Your task to perform on an android device: What's the weather going to be tomorrow? Image 0: 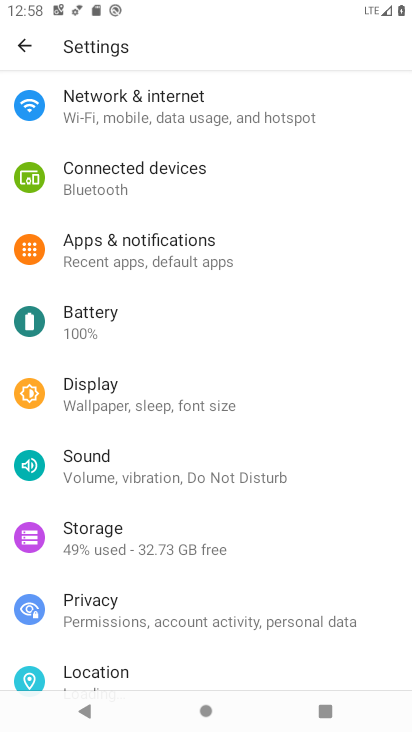
Step 0: press home button
Your task to perform on an android device: What's the weather going to be tomorrow? Image 1: 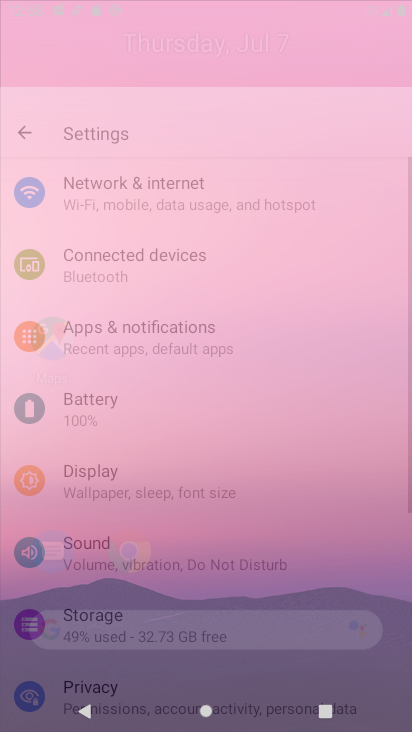
Step 1: drag from (240, 619) to (306, 53)
Your task to perform on an android device: What's the weather going to be tomorrow? Image 2: 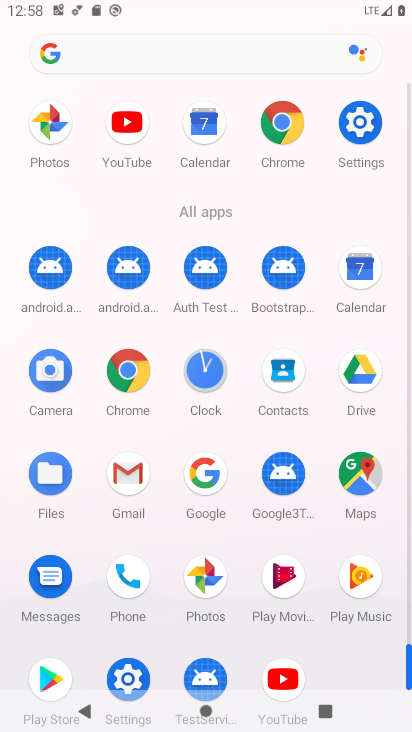
Step 2: click (141, 45)
Your task to perform on an android device: What's the weather going to be tomorrow? Image 3: 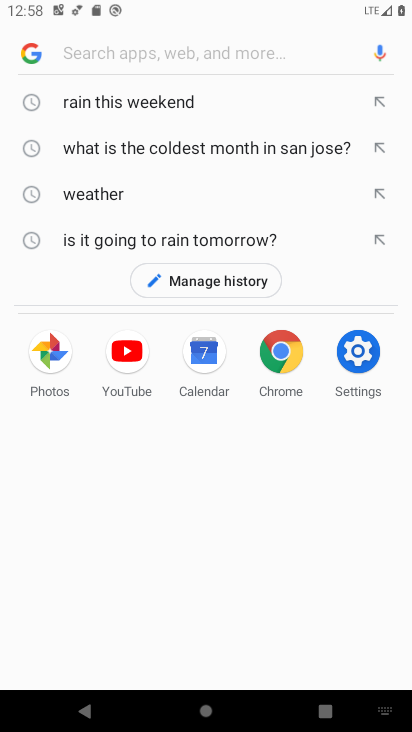
Step 3: type "What's the weather going to be tomorrow?"
Your task to perform on an android device: What's the weather going to be tomorrow? Image 4: 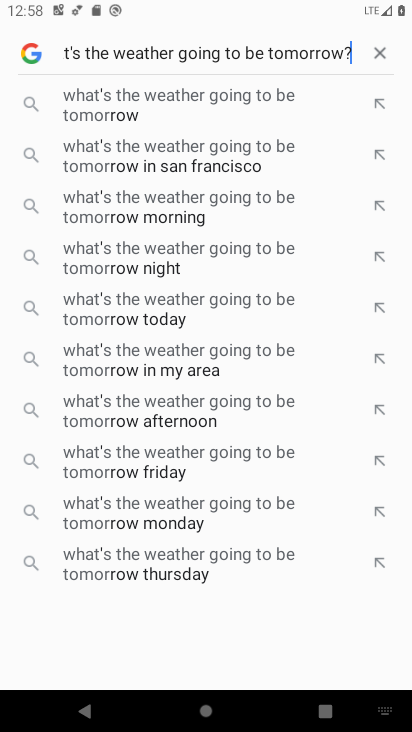
Step 4: type ""
Your task to perform on an android device: What's the weather going to be tomorrow? Image 5: 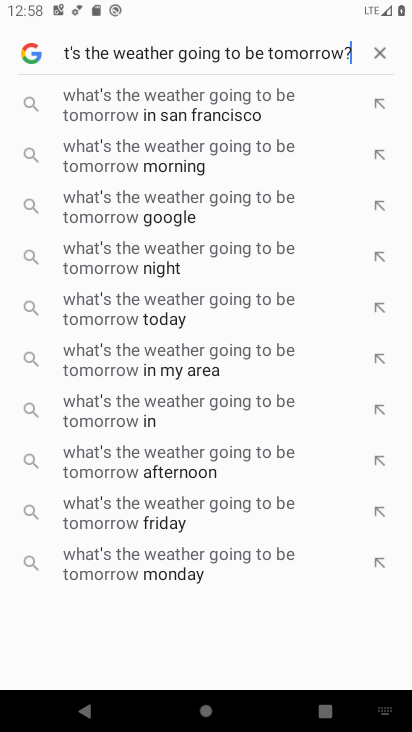
Step 5: click (114, 58)
Your task to perform on an android device: What's the weather going to be tomorrow? Image 6: 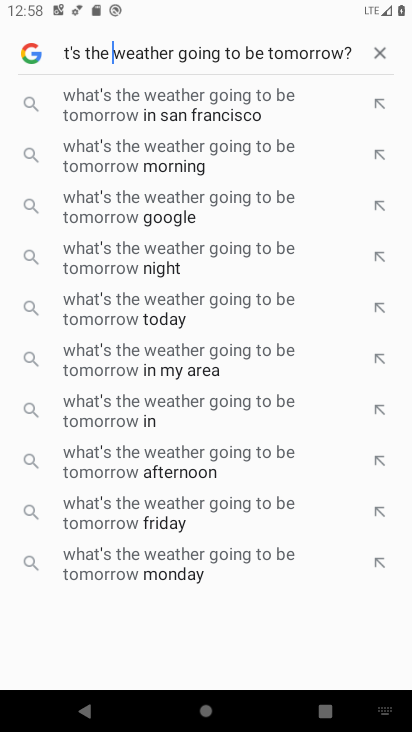
Step 6: click (159, 106)
Your task to perform on an android device: What's the weather going to be tomorrow? Image 7: 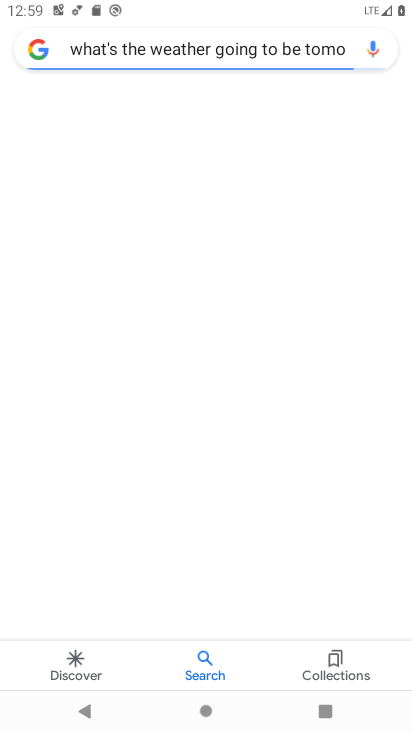
Step 7: task complete